Your task to perform on an android device: Open Maps and search for coffee Image 0: 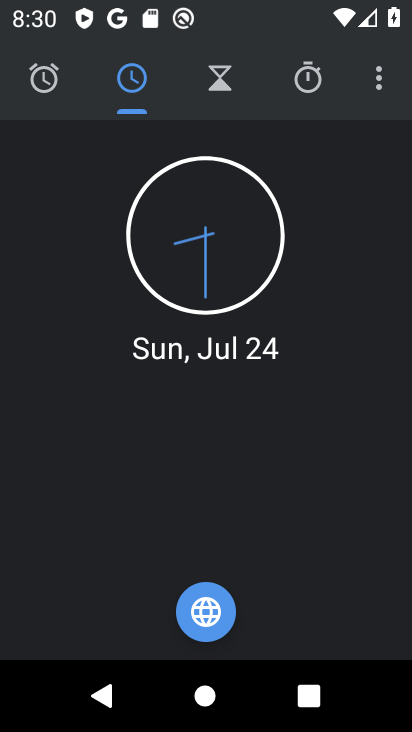
Step 0: press back button
Your task to perform on an android device: Open Maps and search for coffee Image 1: 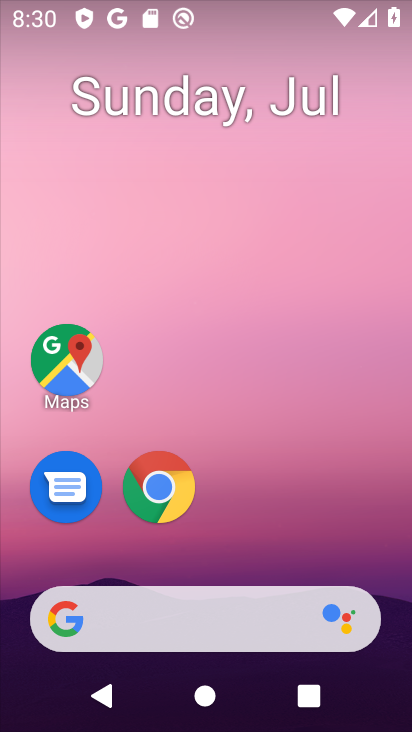
Step 1: click (65, 379)
Your task to perform on an android device: Open Maps and search for coffee Image 2: 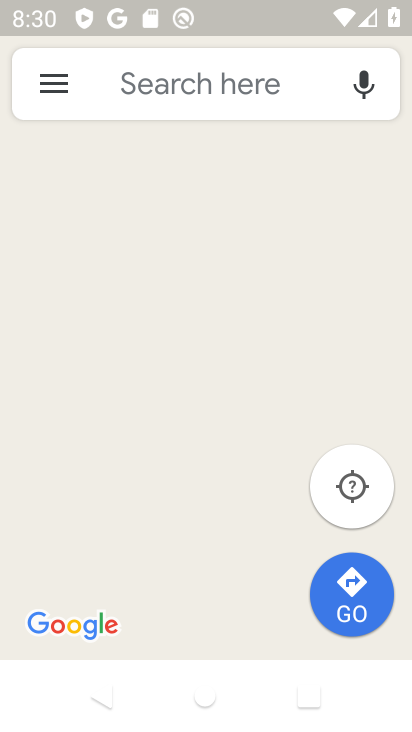
Step 2: click (151, 89)
Your task to perform on an android device: Open Maps and search for coffee Image 3: 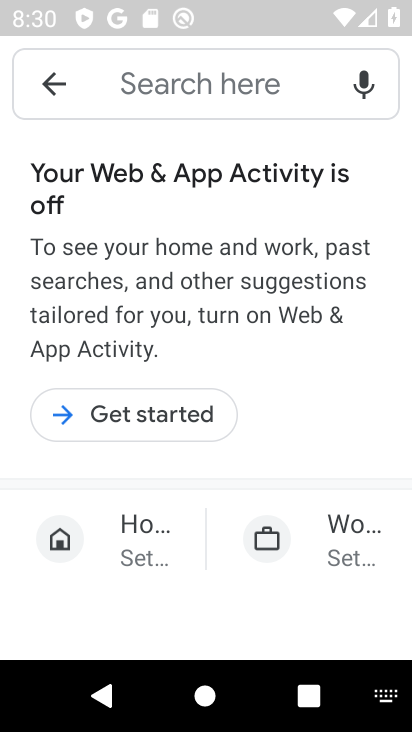
Step 3: type "coffee"
Your task to perform on an android device: Open Maps and search for coffee Image 4: 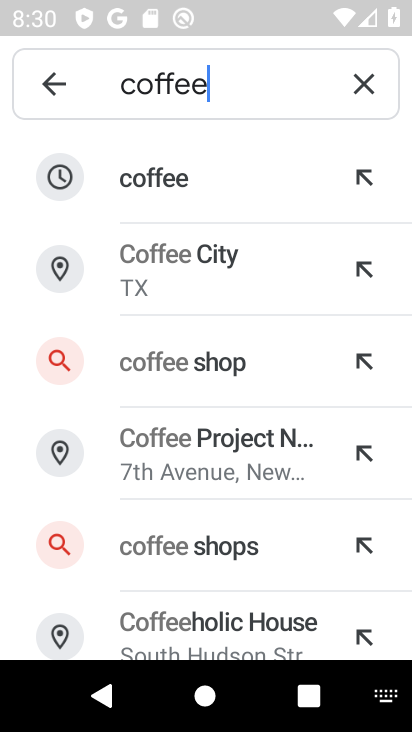
Step 4: click (170, 184)
Your task to perform on an android device: Open Maps and search for coffee Image 5: 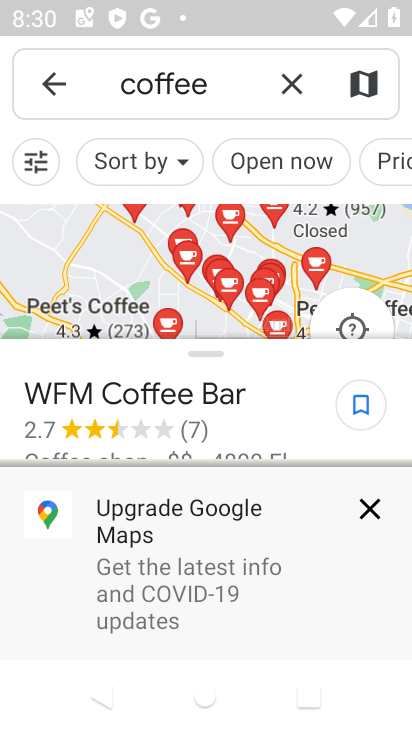
Step 5: task complete